Your task to perform on an android device: Search for Mexican restaurants on Maps Image 0: 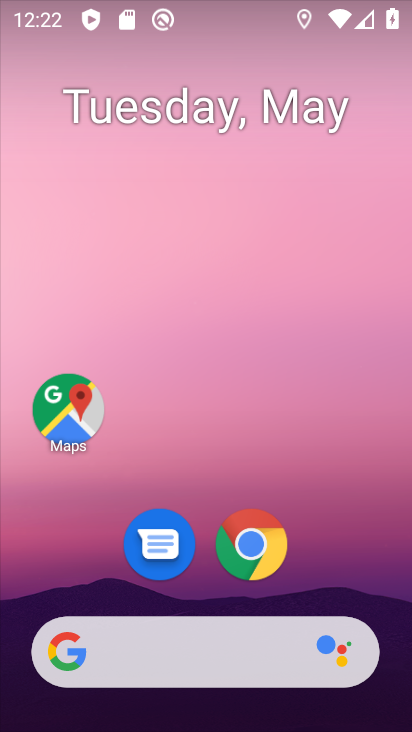
Step 0: click (72, 427)
Your task to perform on an android device: Search for Mexican restaurants on Maps Image 1: 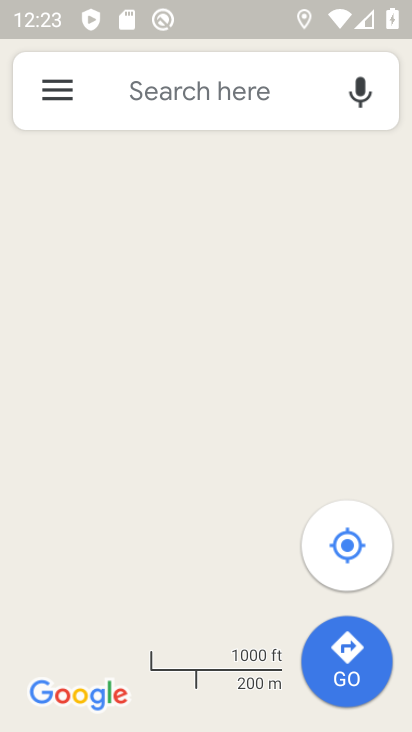
Step 1: click (187, 85)
Your task to perform on an android device: Search for Mexican restaurants on Maps Image 2: 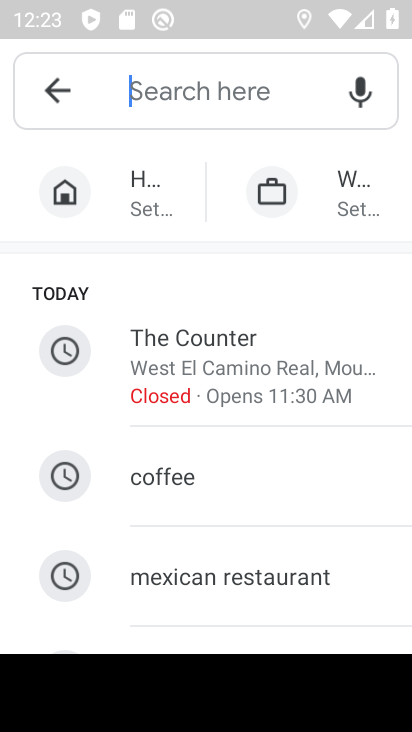
Step 2: type "Mexican restaurants"
Your task to perform on an android device: Search for Mexican restaurants on Maps Image 3: 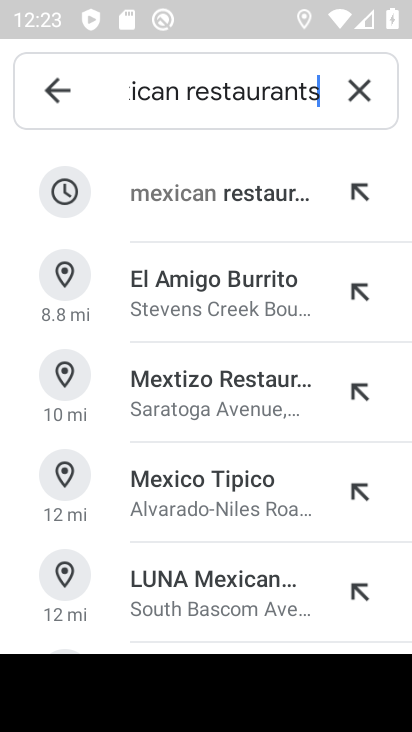
Step 3: click (263, 201)
Your task to perform on an android device: Search for Mexican restaurants on Maps Image 4: 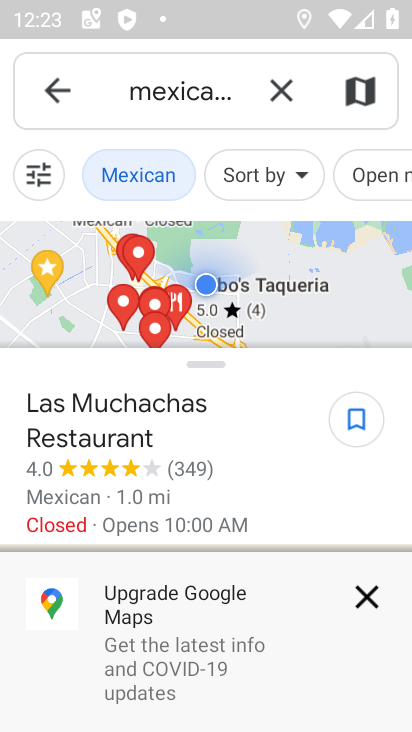
Step 4: click (379, 609)
Your task to perform on an android device: Search for Mexican restaurants on Maps Image 5: 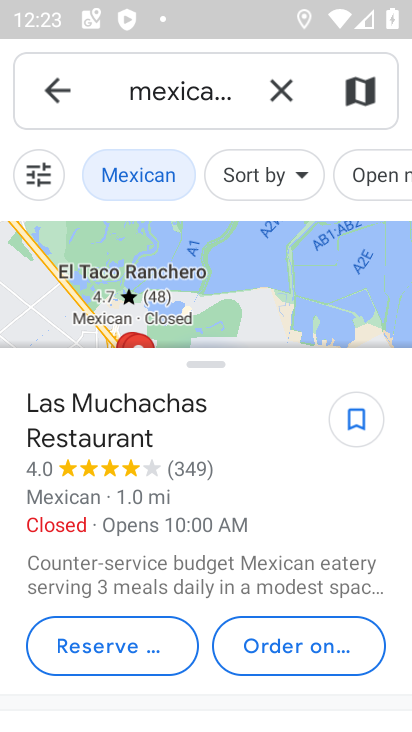
Step 5: task complete